Your task to perform on an android device: Go to Google maps Image 0: 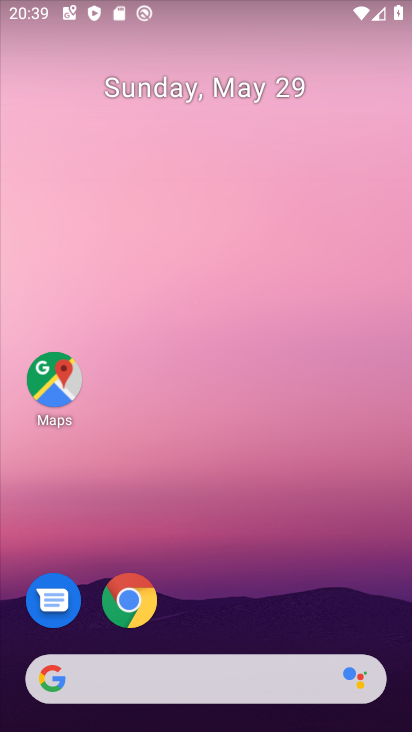
Step 0: drag from (359, 593) to (333, 206)
Your task to perform on an android device: Go to Google maps Image 1: 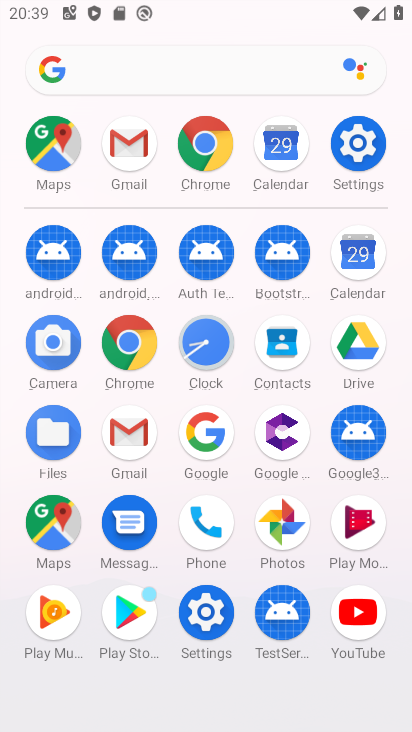
Step 1: click (63, 530)
Your task to perform on an android device: Go to Google maps Image 2: 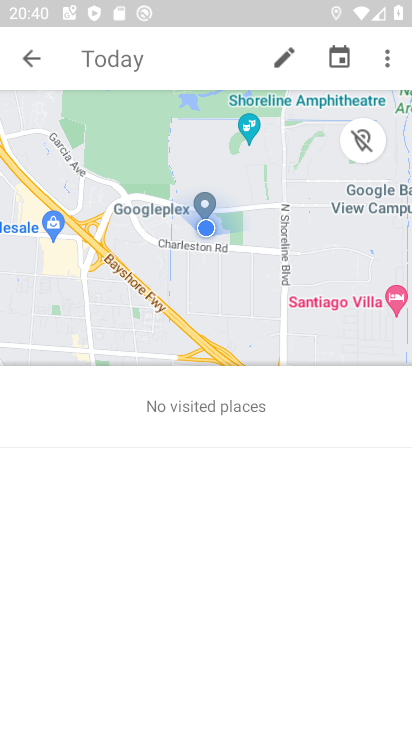
Step 2: task complete